Your task to perform on an android device: Open Yahoo.com Image 0: 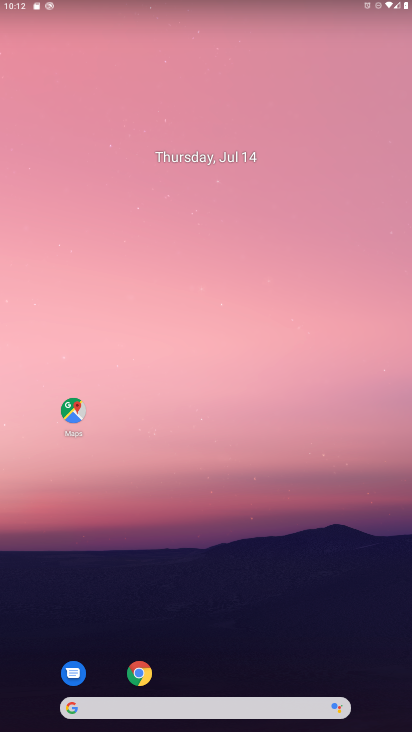
Step 0: click (141, 674)
Your task to perform on an android device: Open Yahoo.com Image 1: 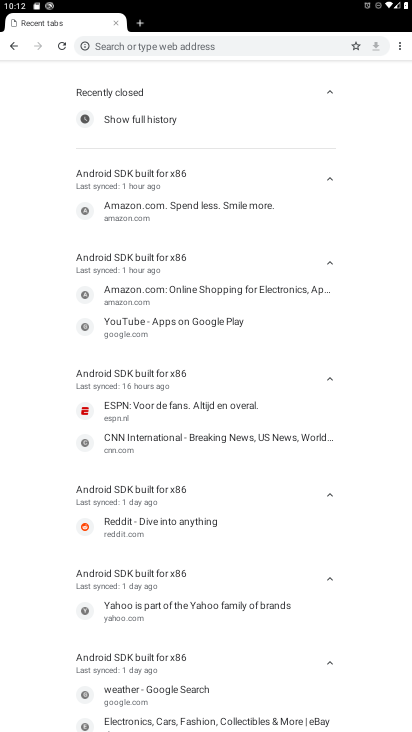
Step 1: click (270, 36)
Your task to perform on an android device: Open Yahoo.com Image 2: 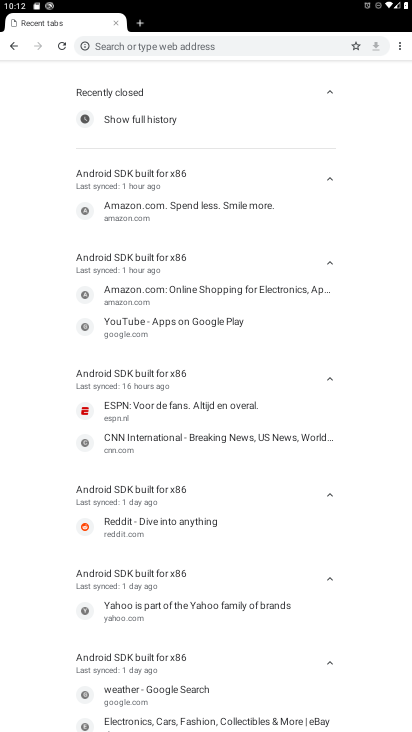
Step 2: click (268, 45)
Your task to perform on an android device: Open Yahoo.com Image 3: 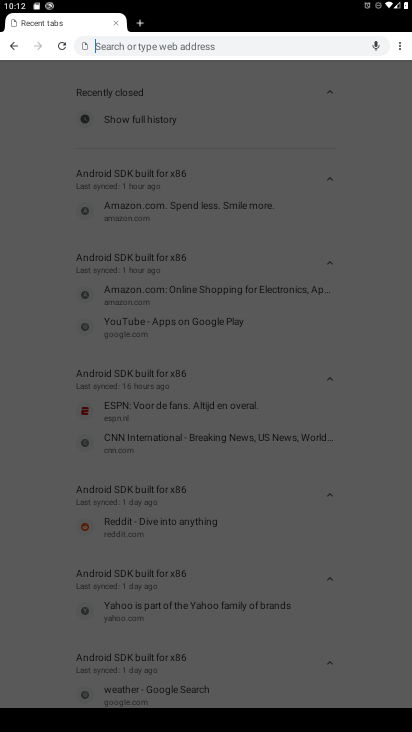
Step 3: type "Yahoo.com"
Your task to perform on an android device: Open Yahoo.com Image 4: 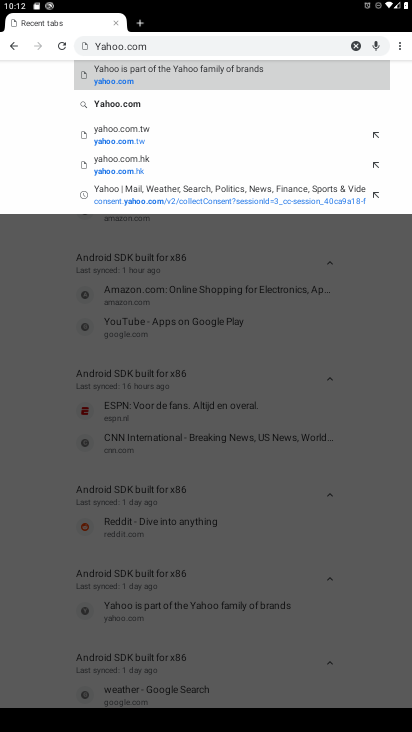
Step 4: click (128, 101)
Your task to perform on an android device: Open Yahoo.com Image 5: 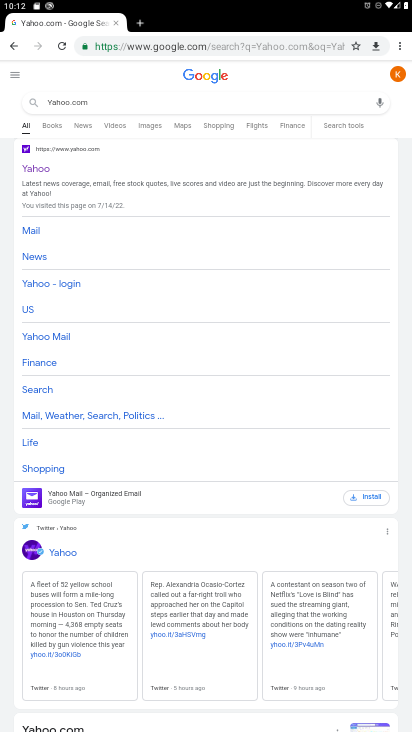
Step 5: click (56, 175)
Your task to perform on an android device: Open Yahoo.com Image 6: 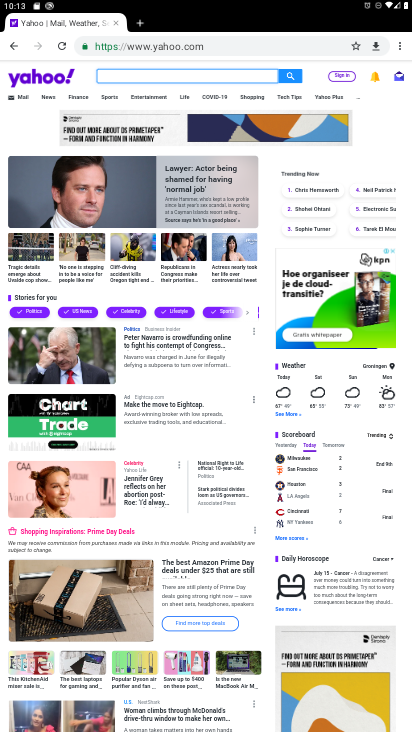
Step 6: task complete